Your task to perform on an android device: add a label to a message in the gmail app Image 0: 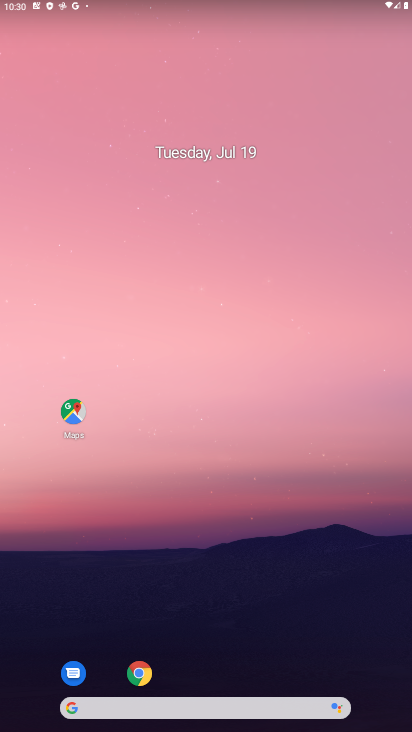
Step 0: drag from (231, 659) to (232, 158)
Your task to perform on an android device: add a label to a message in the gmail app Image 1: 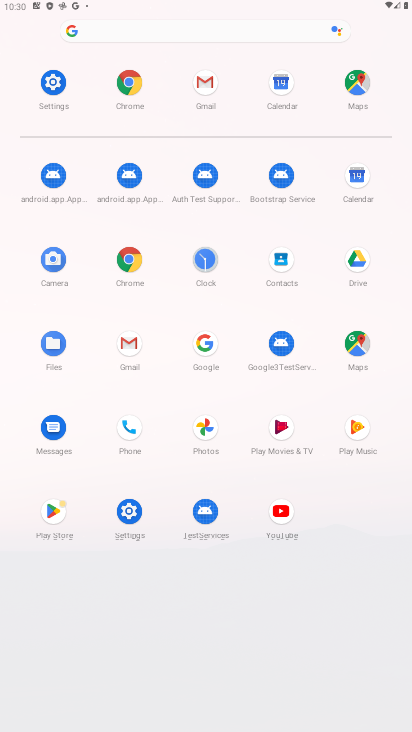
Step 1: click (211, 113)
Your task to perform on an android device: add a label to a message in the gmail app Image 2: 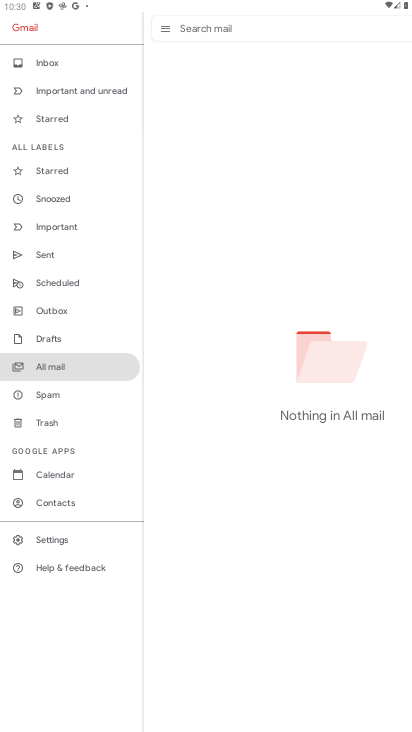
Step 2: task complete